Your task to perform on an android device: search for starred emails in the gmail app Image 0: 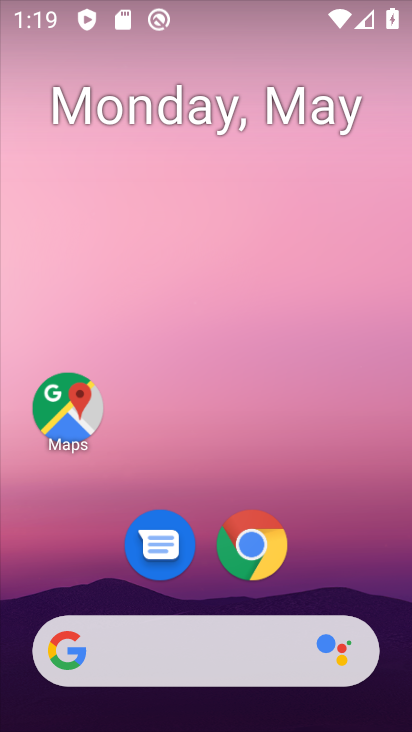
Step 0: drag from (158, 707) to (219, 35)
Your task to perform on an android device: search for starred emails in the gmail app Image 1: 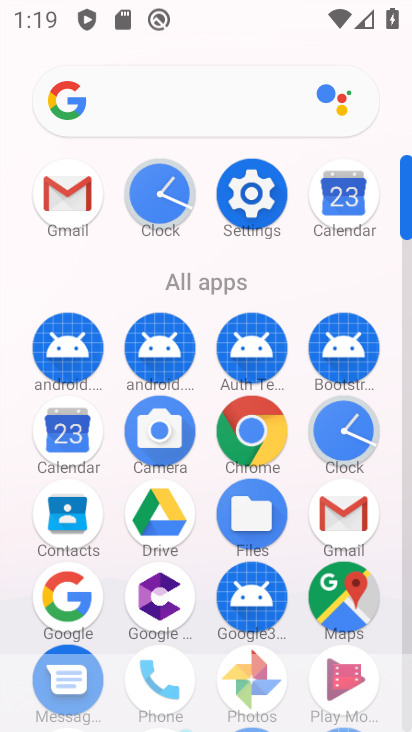
Step 1: click (61, 202)
Your task to perform on an android device: search for starred emails in the gmail app Image 2: 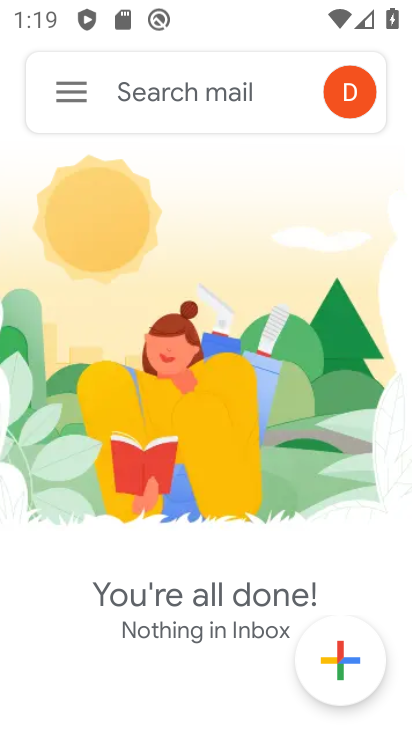
Step 2: click (66, 79)
Your task to perform on an android device: search for starred emails in the gmail app Image 3: 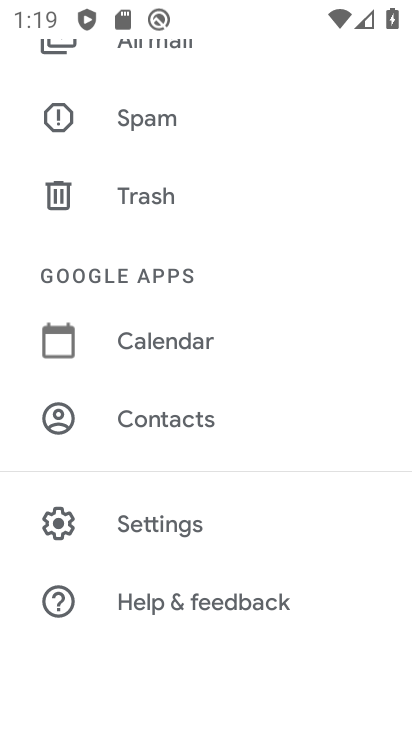
Step 3: drag from (255, 171) to (220, 705)
Your task to perform on an android device: search for starred emails in the gmail app Image 4: 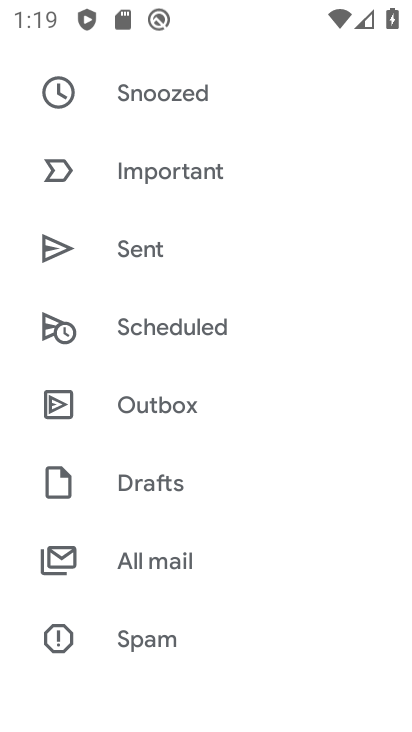
Step 4: drag from (309, 194) to (214, 722)
Your task to perform on an android device: search for starred emails in the gmail app Image 5: 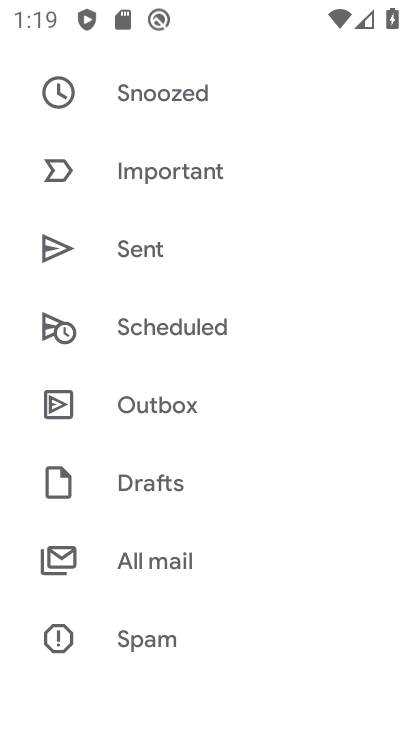
Step 5: drag from (204, 148) to (268, 615)
Your task to perform on an android device: search for starred emails in the gmail app Image 6: 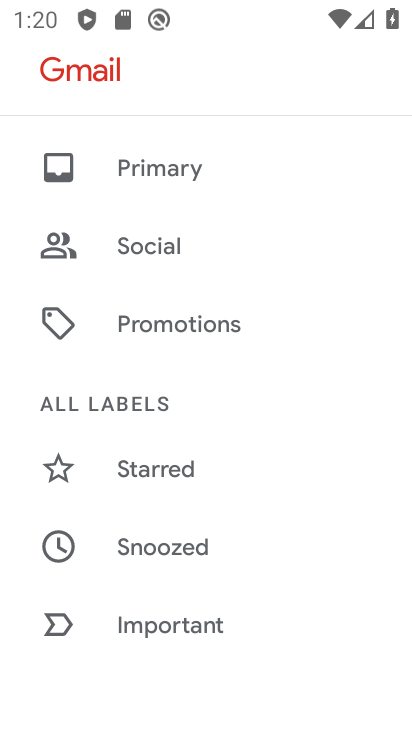
Step 6: click (199, 468)
Your task to perform on an android device: search for starred emails in the gmail app Image 7: 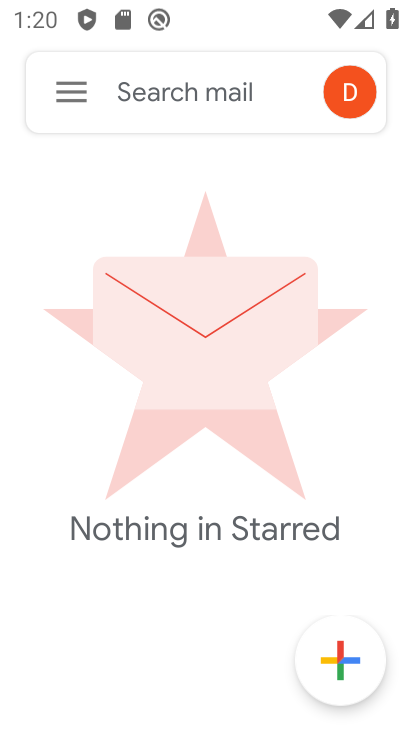
Step 7: click (76, 95)
Your task to perform on an android device: search for starred emails in the gmail app Image 8: 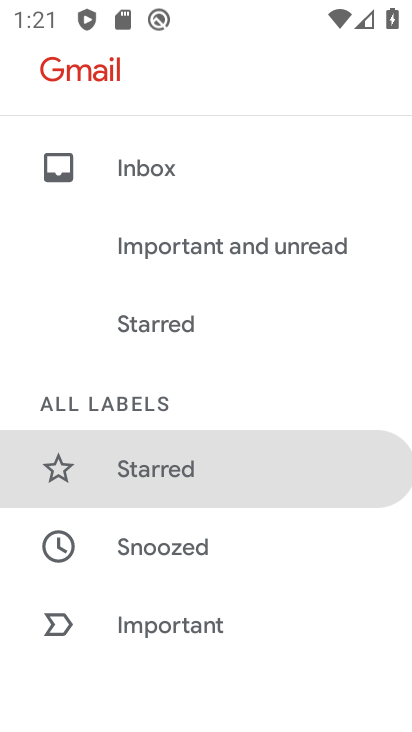
Step 8: click (178, 477)
Your task to perform on an android device: search for starred emails in the gmail app Image 9: 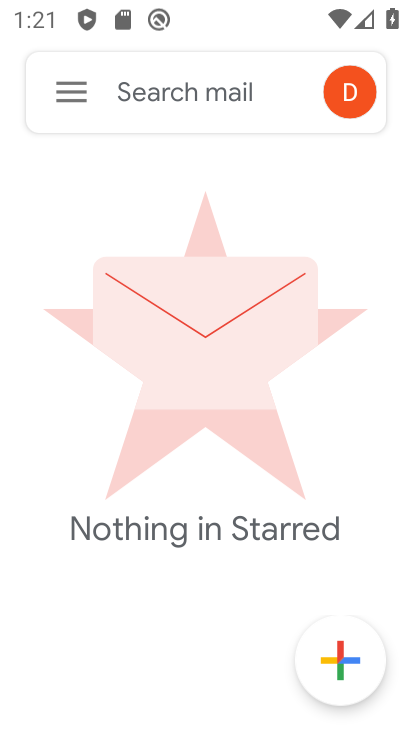
Step 9: task complete